Your task to perform on an android device: change your default location settings in chrome Image 0: 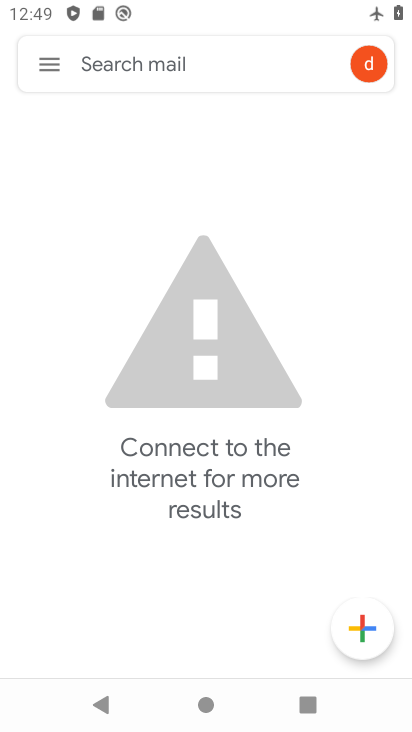
Step 0: press home button
Your task to perform on an android device: change your default location settings in chrome Image 1: 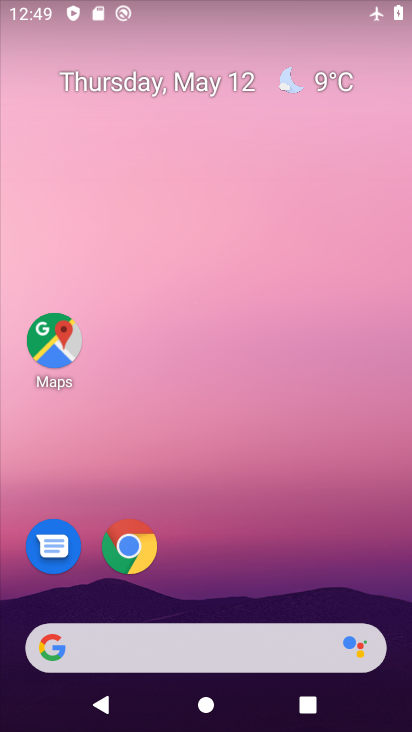
Step 1: drag from (187, 685) to (141, 288)
Your task to perform on an android device: change your default location settings in chrome Image 2: 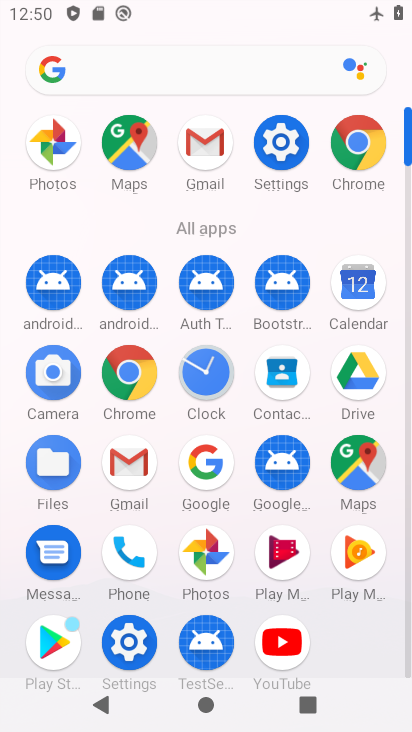
Step 2: click (117, 366)
Your task to perform on an android device: change your default location settings in chrome Image 3: 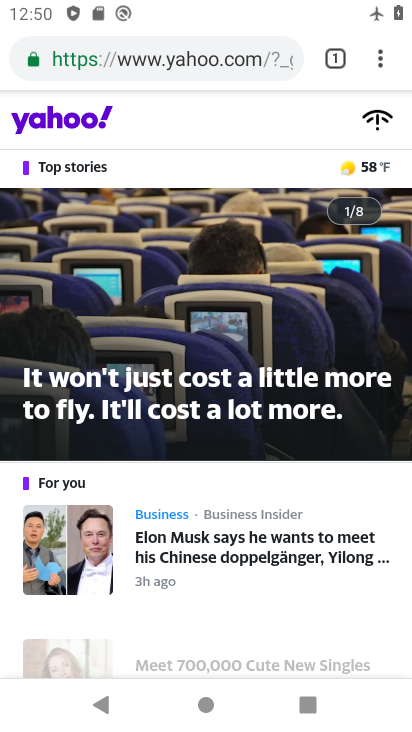
Step 3: click (377, 60)
Your task to perform on an android device: change your default location settings in chrome Image 4: 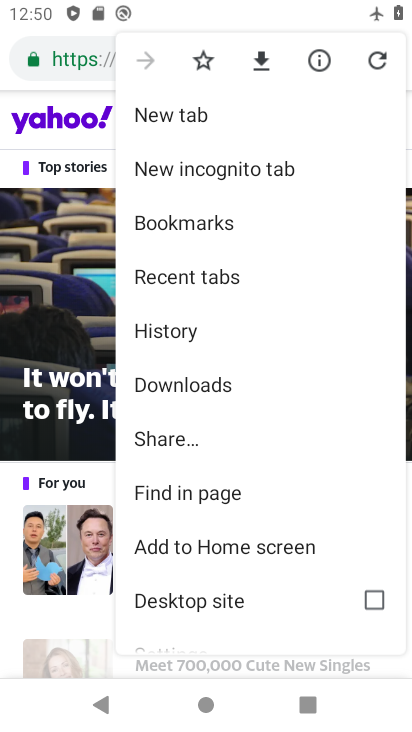
Step 4: drag from (141, 534) to (203, 354)
Your task to perform on an android device: change your default location settings in chrome Image 5: 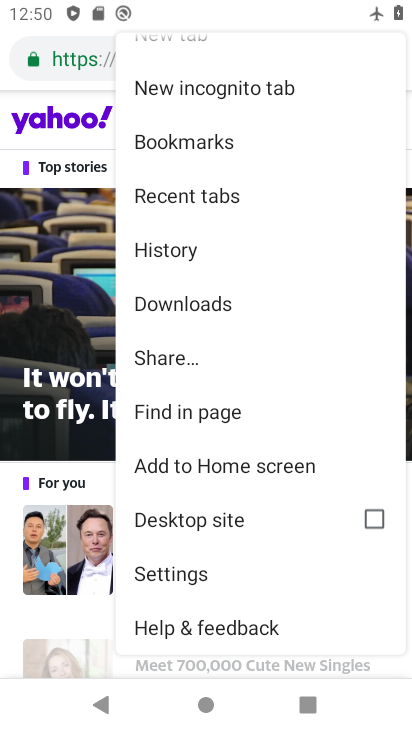
Step 5: click (152, 574)
Your task to perform on an android device: change your default location settings in chrome Image 6: 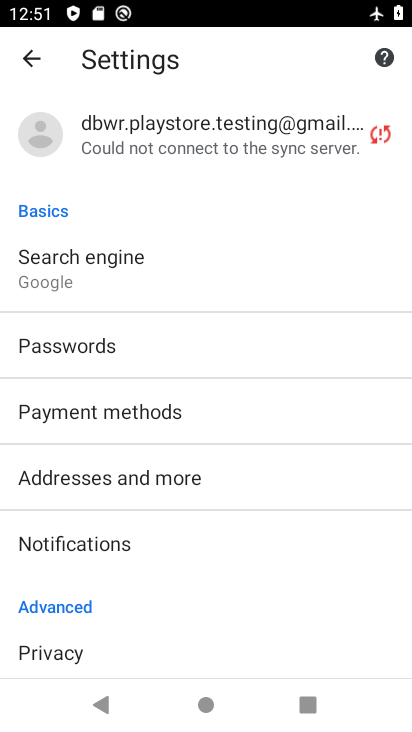
Step 6: drag from (125, 588) to (172, 294)
Your task to perform on an android device: change your default location settings in chrome Image 7: 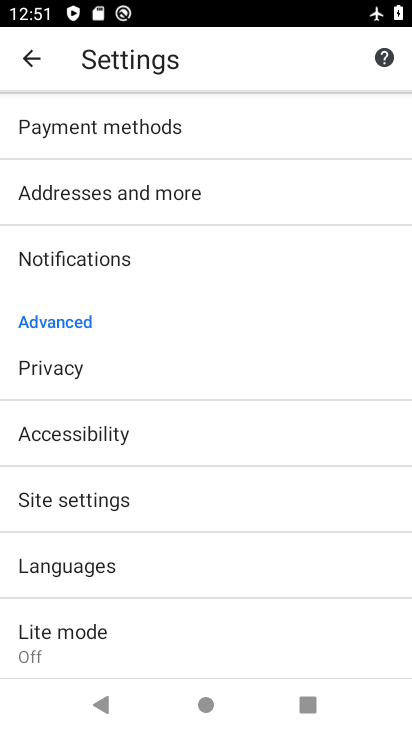
Step 7: click (96, 502)
Your task to perform on an android device: change your default location settings in chrome Image 8: 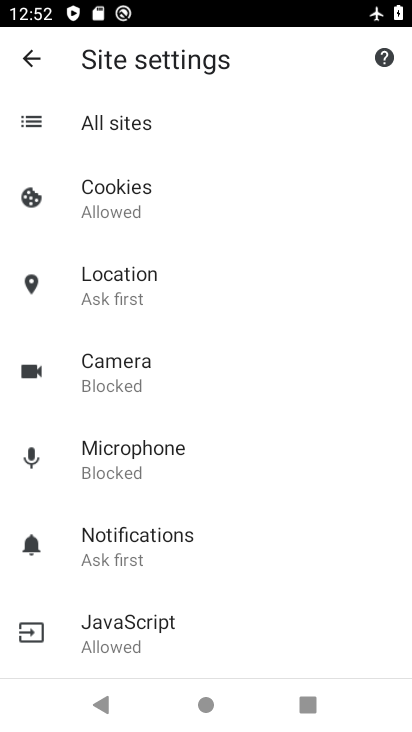
Step 8: click (153, 277)
Your task to perform on an android device: change your default location settings in chrome Image 9: 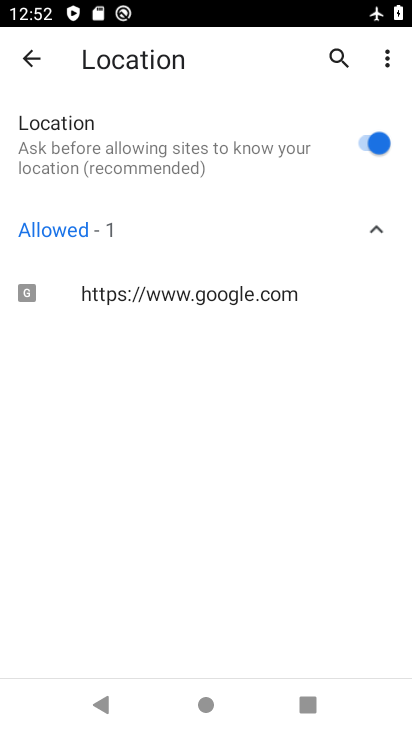
Step 9: task complete